Your task to perform on an android device: see sites visited before in the chrome app Image 0: 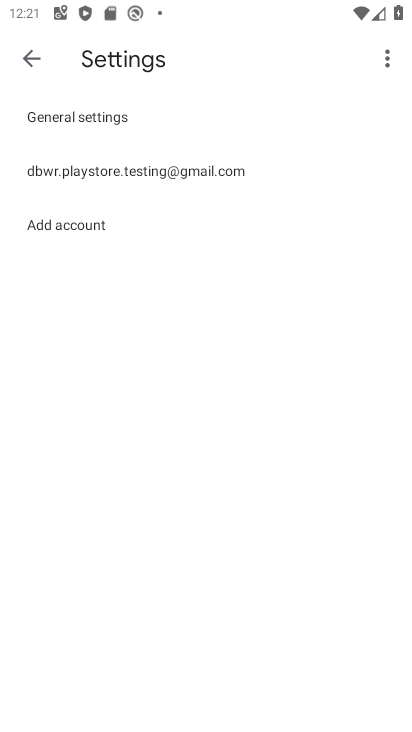
Step 0: press home button
Your task to perform on an android device: see sites visited before in the chrome app Image 1: 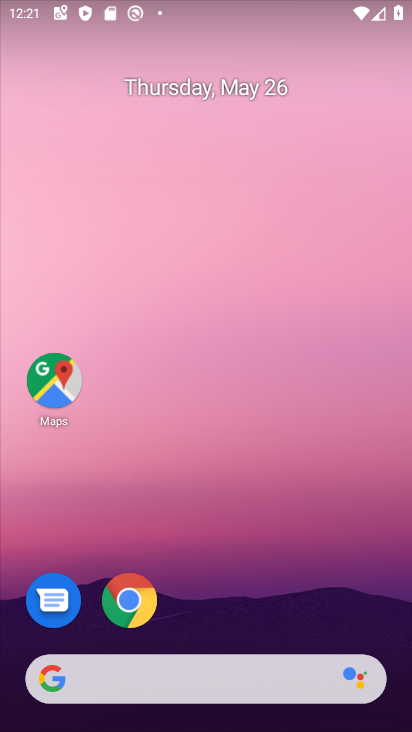
Step 1: click (135, 595)
Your task to perform on an android device: see sites visited before in the chrome app Image 2: 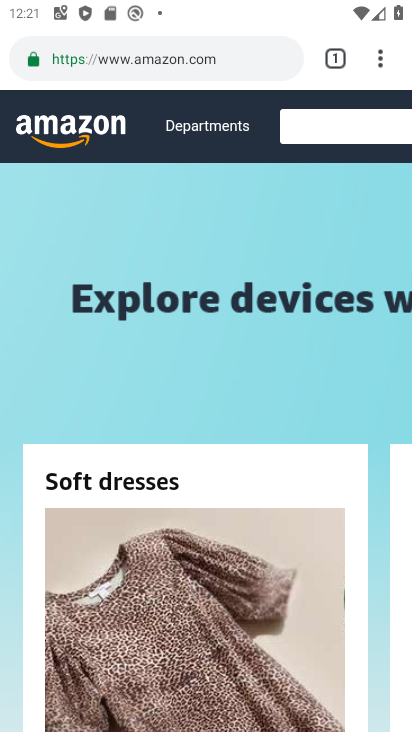
Step 2: task complete